Your task to perform on an android device: Open battery settings Image 0: 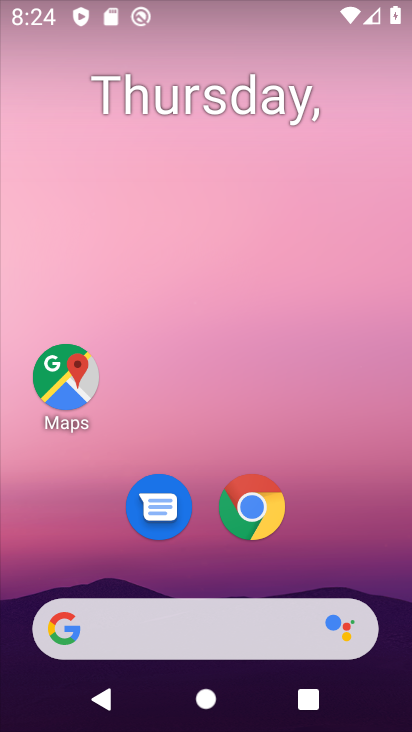
Step 0: drag from (202, 556) to (197, 15)
Your task to perform on an android device: Open battery settings Image 1: 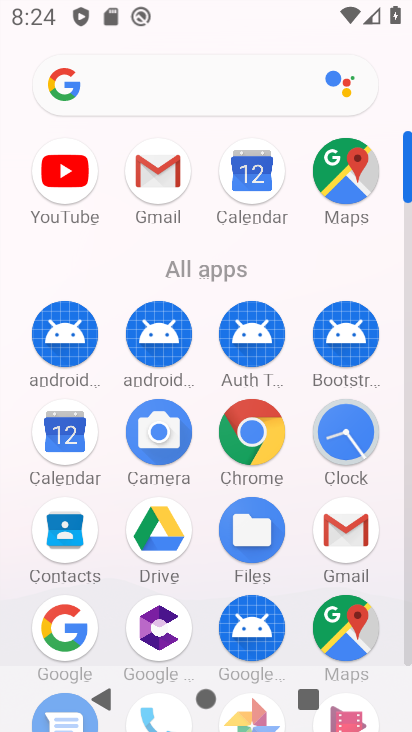
Step 1: drag from (198, 532) to (206, 229)
Your task to perform on an android device: Open battery settings Image 2: 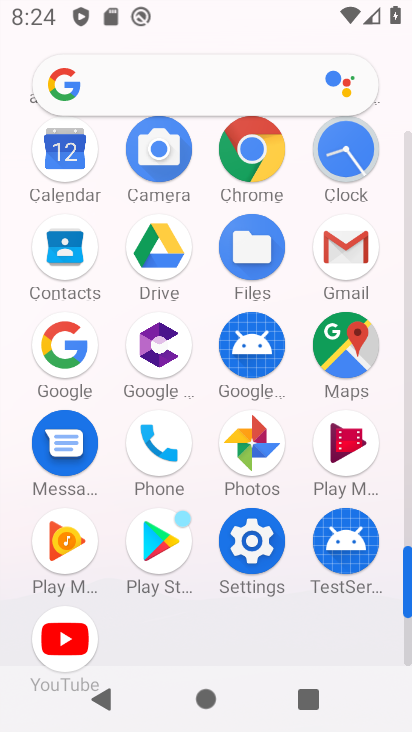
Step 2: click (251, 543)
Your task to perform on an android device: Open battery settings Image 3: 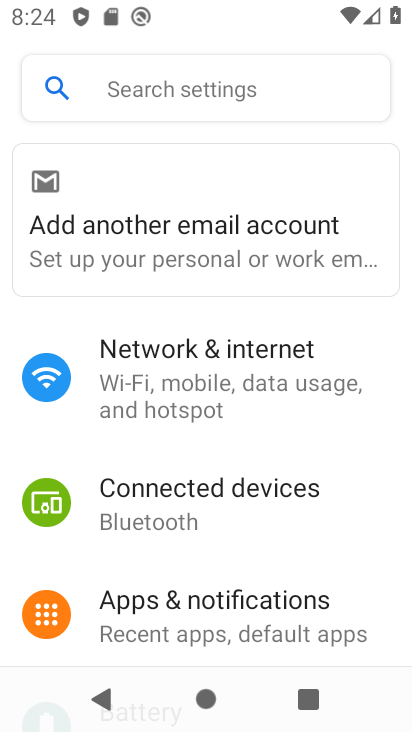
Step 3: drag from (206, 523) to (248, 258)
Your task to perform on an android device: Open battery settings Image 4: 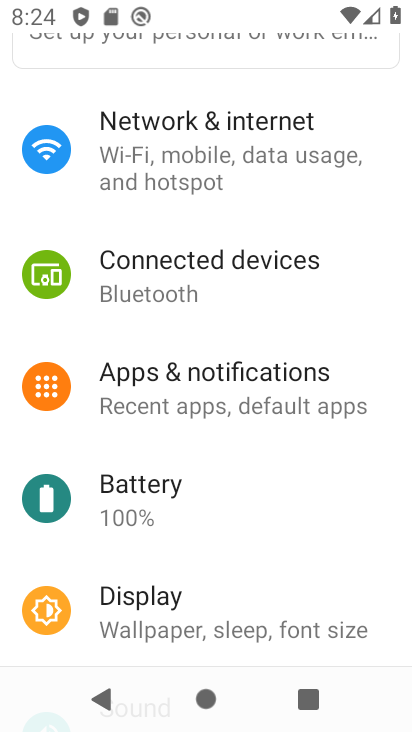
Step 4: click (165, 493)
Your task to perform on an android device: Open battery settings Image 5: 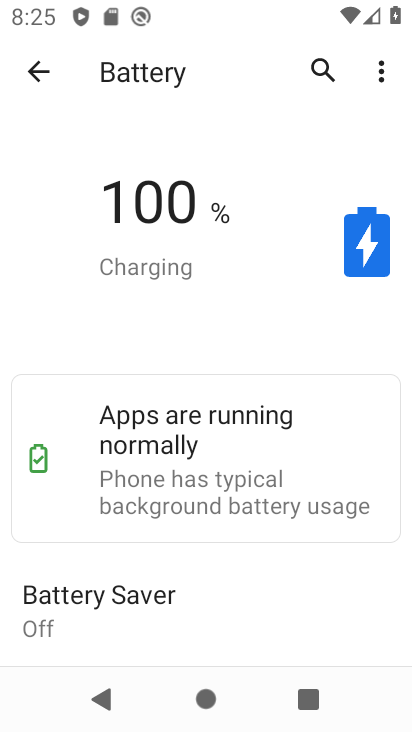
Step 5: task complete